Your task to perform on an android device: Go to sound settings Image 0: 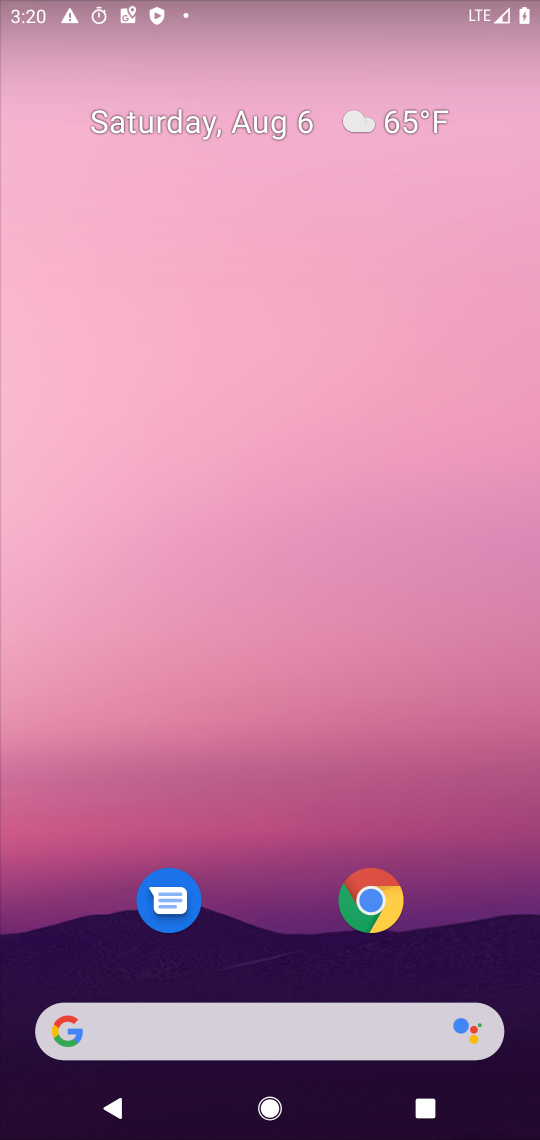
Step 0: press home button
Your task to perform on an android device: Go to sound settings Image 1: 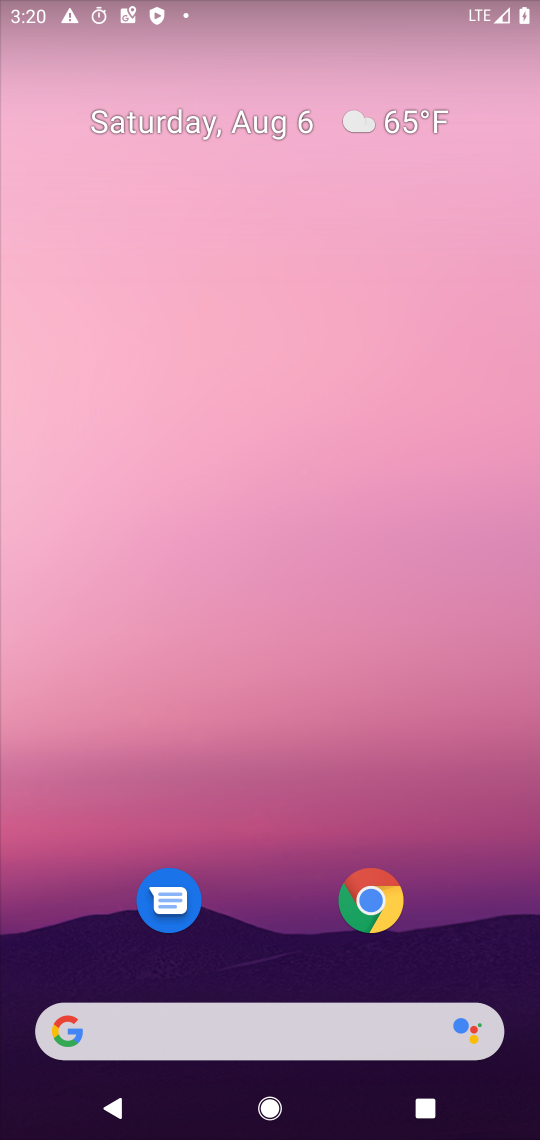
Step 1: press home button
Your task to perform on an android device: Go to sound settings Image 2: 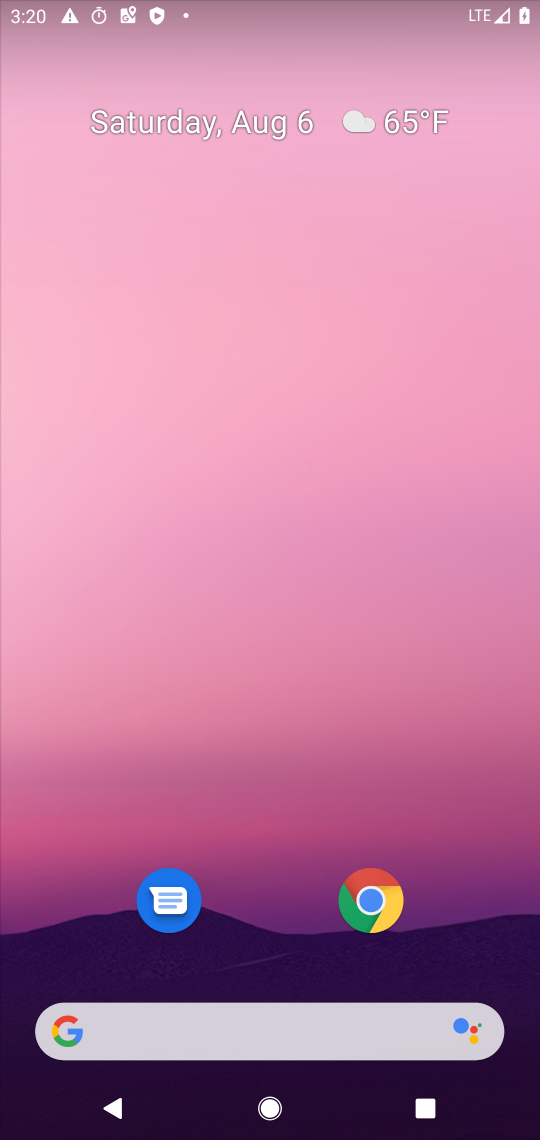
Step 2: click (362, 902)
Your task to perform on an android device: Go to sound settings Image 3: 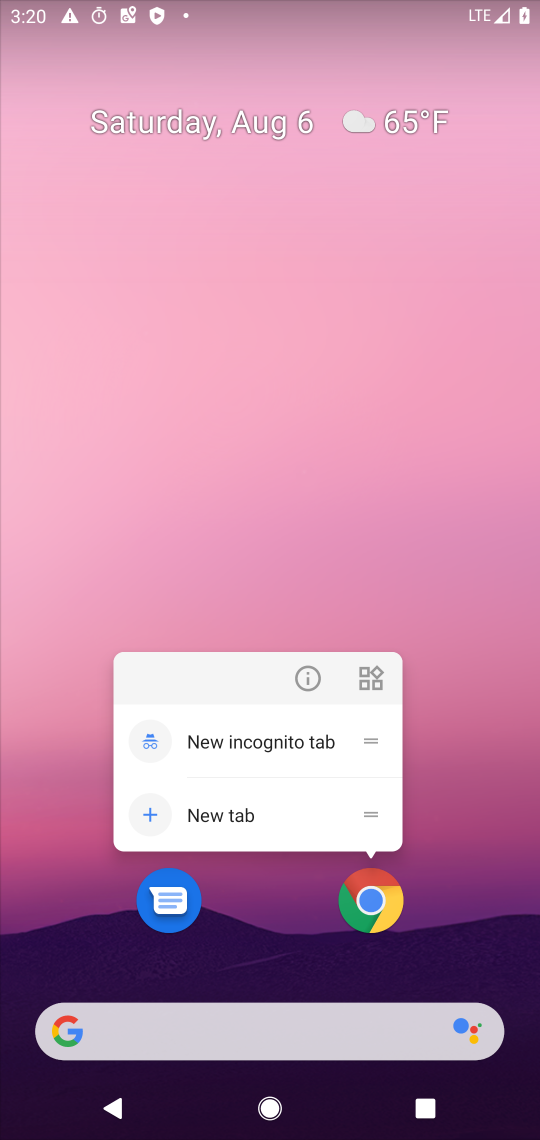
Step 3: press home button
Your task to perform on an android device: Go to sound settings Image 4: 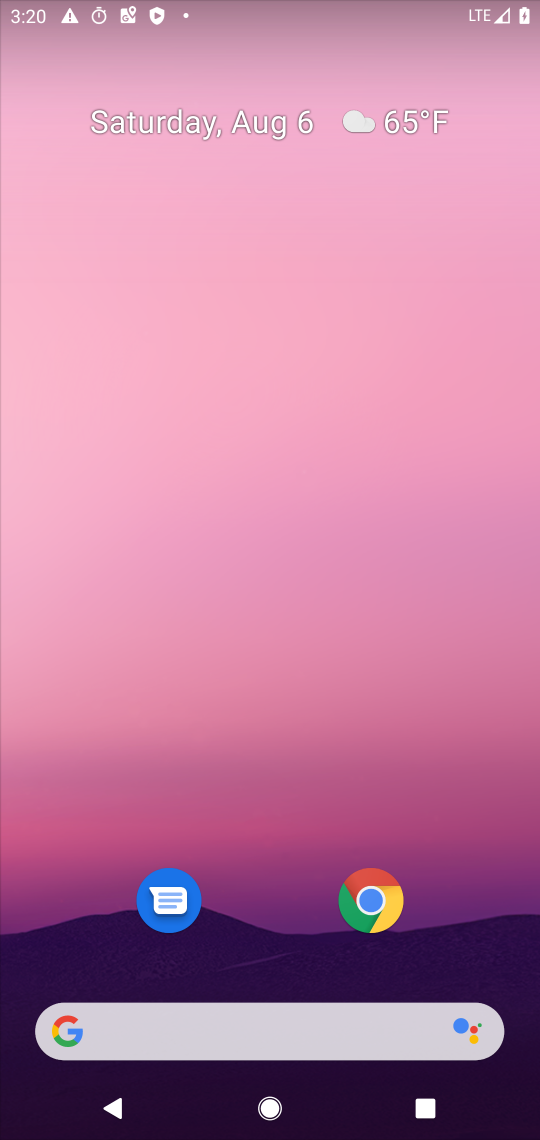
Step 4: drag from (283, 870) to (339, 51)
Your task to perform on an android device: Go to sound settings Image 5: 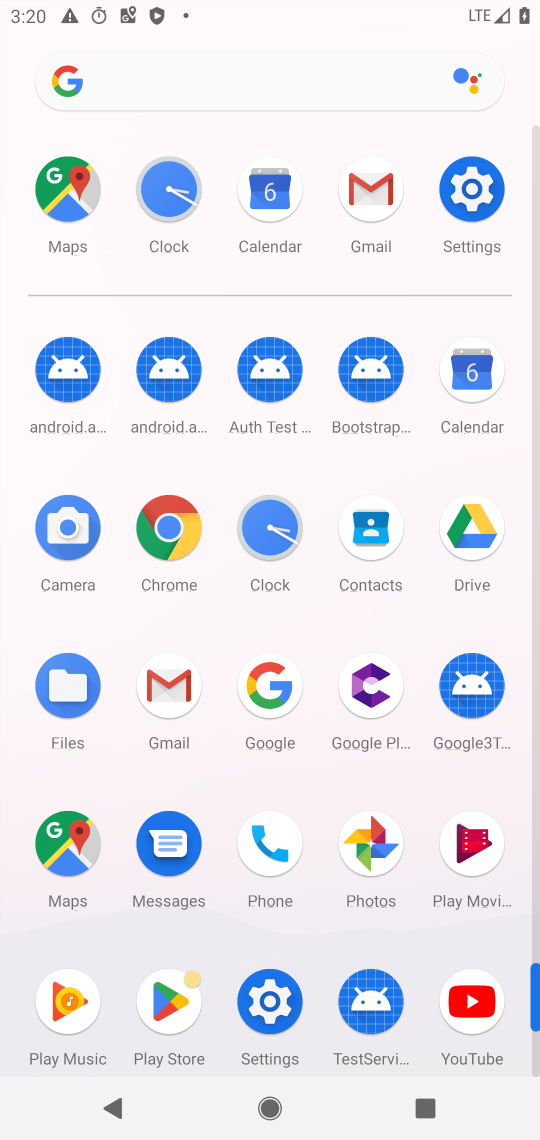
Step 5: click (475, 189)
Your task to perform on an android device: Go to sound settings Image 6: 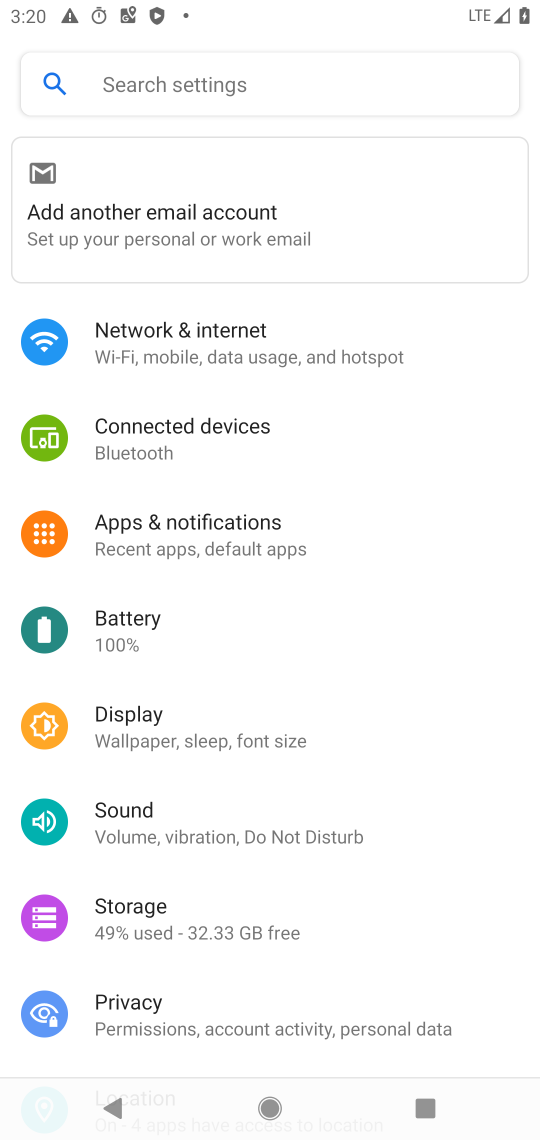
Step 6: click (134, 819)
Your task to perform on an android device: Go to sound settings Image 7: 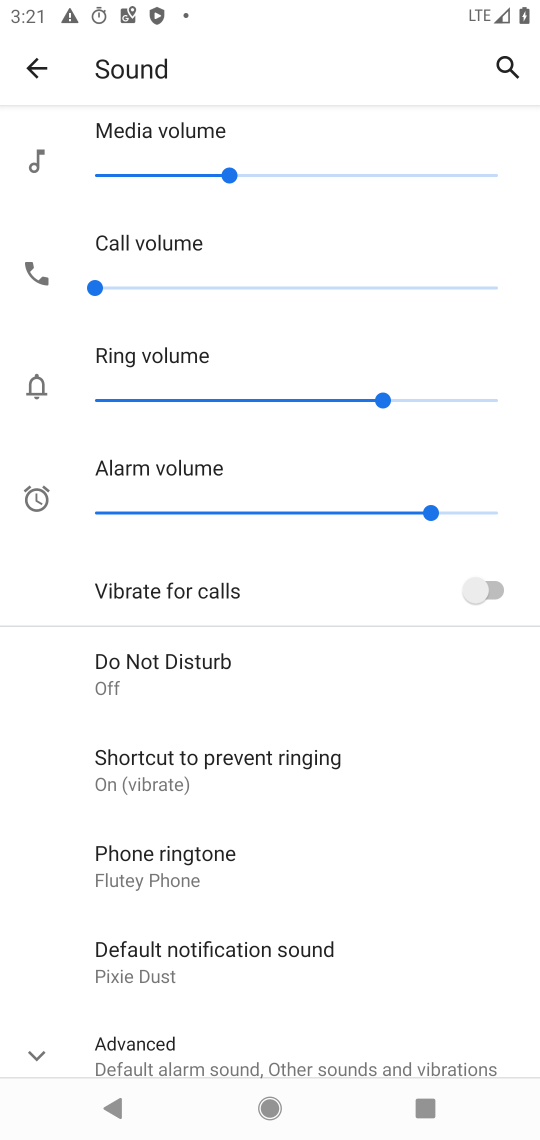
Step 7: task complete